Your task to perform on an android device: Search for vegetarian restaurants on Maps Image 0: 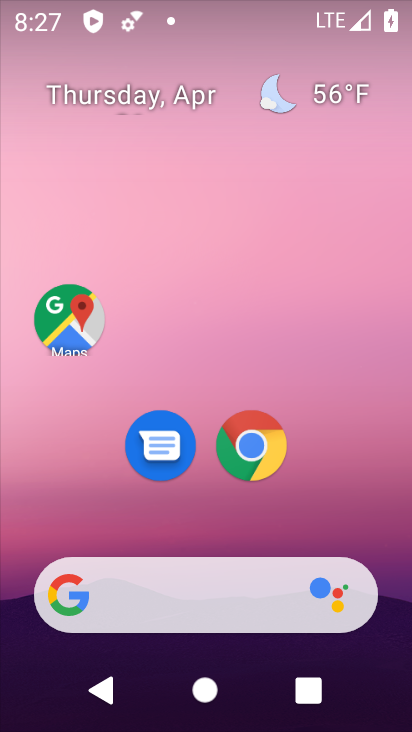
Step 0: click (60, 324)
Your task to perform on an android device: Search for vegetarian restaurants on Maps Image 1: 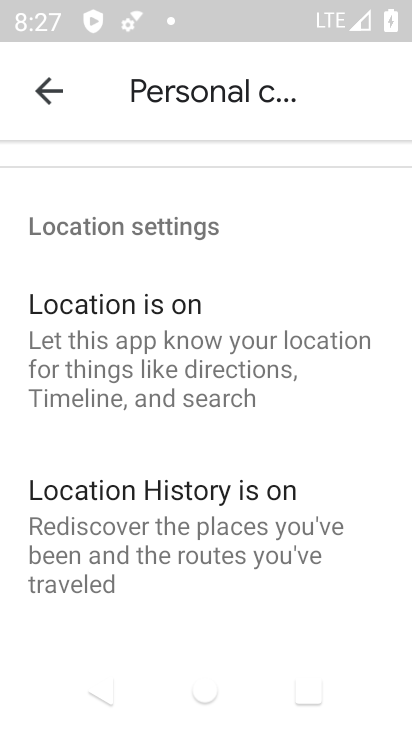
Step 1: click (50, 84)
Your task to perform on an android device: Search for vegetarian restaurants on Maps Image 2: 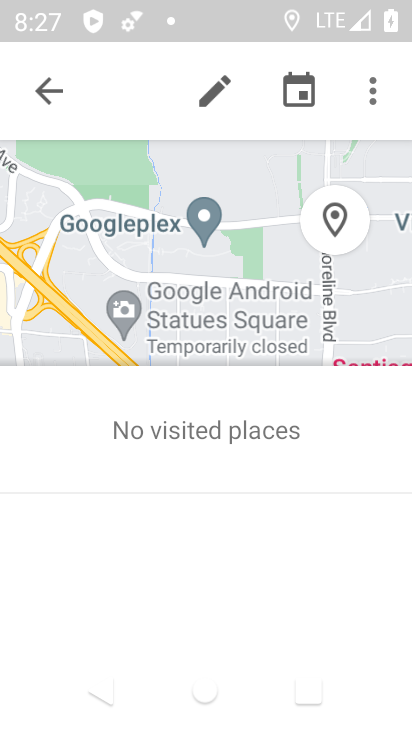
Step 2: click (50, 84)
Your task to perform on an android device: Search for vegetarian restaurants on Maps Image 3: 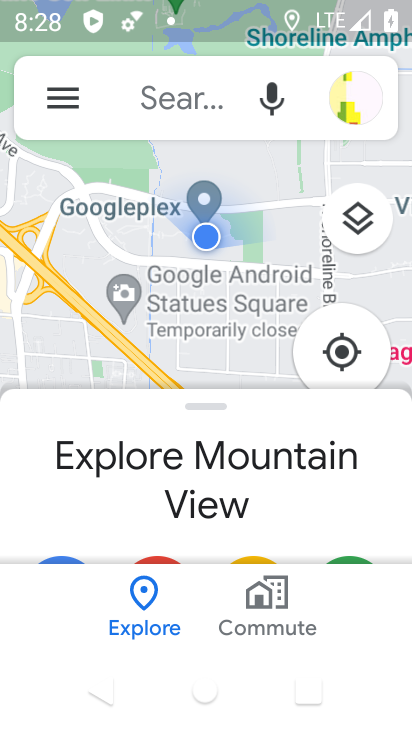
Step 3: click (147, 91)
Your task to perform on an android device: Search for vegetarian restaurants on Maps Image 4: 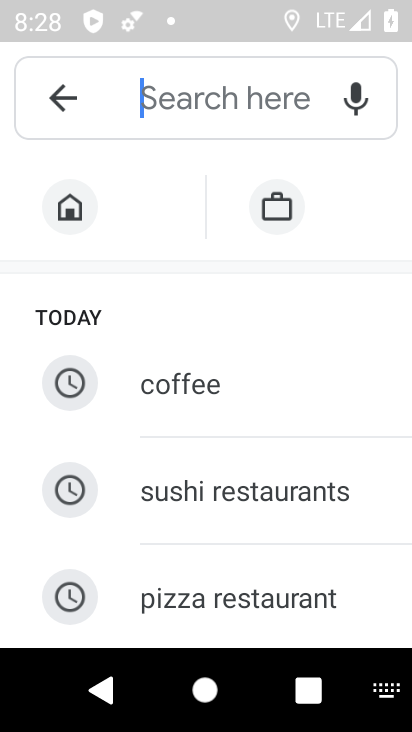
Step 4: type "vegetarian restaurant"
Your task to perform on an android device: Search for vegetarian restaurants on Maps Image 5: 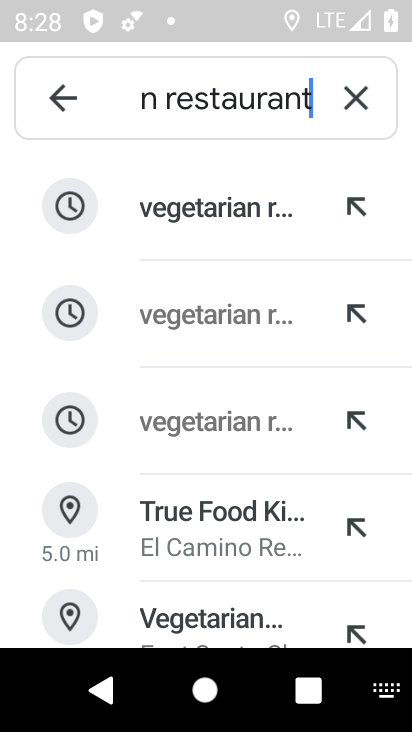
Step 5: click (240, 213)
Your task to perform on an android device: Search for vegetarian restaurants on Maps Image 6: 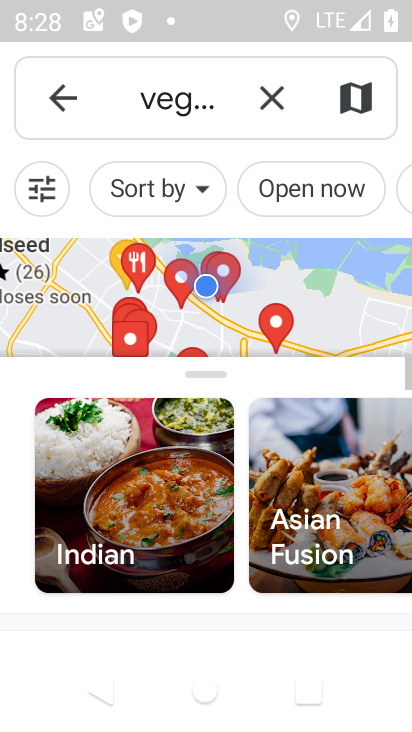
Step 6: task complete